Your task to perform on an android device: What's on my calendar today? Image 0: 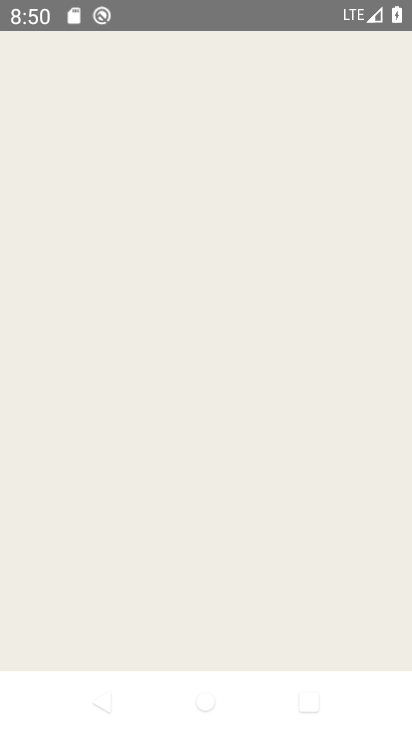
Step 0: drag from (330, 529) to (317, 156)
Your task to perform on an android device: What's on my calendar today? Image 1: 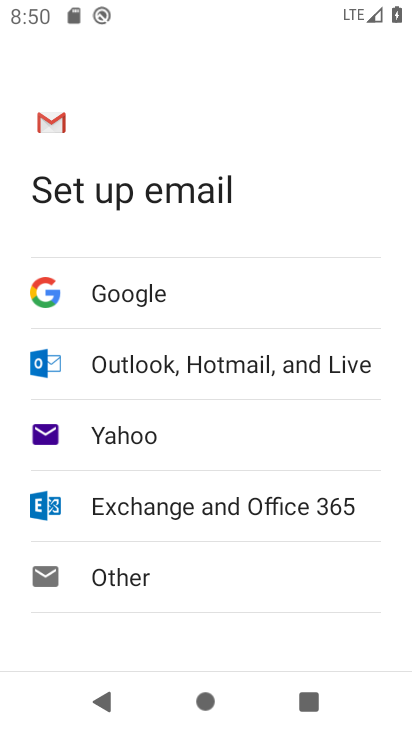
Step 1: press home button
Your task to perform on an android device: What's on my calendar today? Image 2: 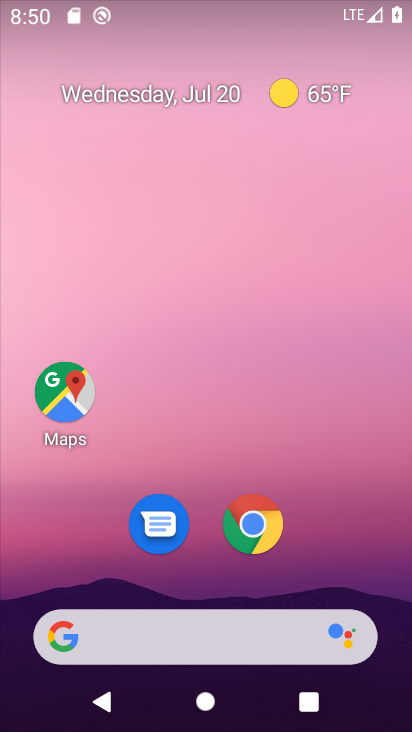
Step 2: drag from (325, 539) to (309, 62)
Your task to perform on an android device: What's on my calendar today? Image 3: 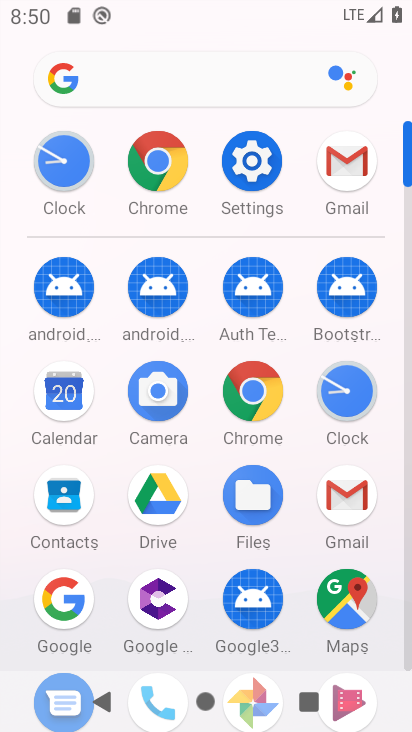
Step 3: click (77, 395)
Your task to perform on an android device: What's on my calendar today? Image 4: 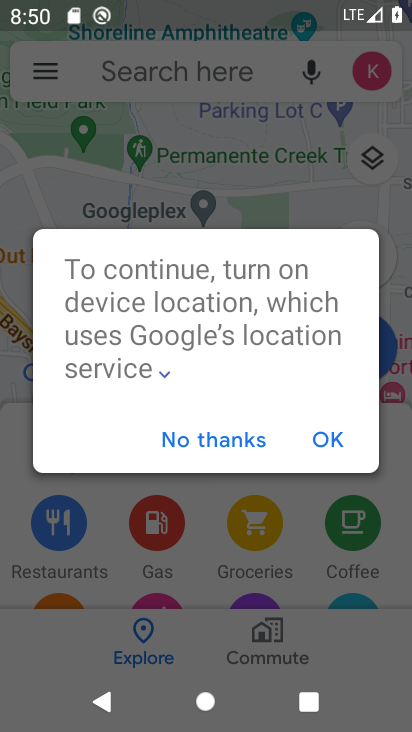
Step 4: click (201, 433)
Your task to perform on an android device: What's on my calendar today? Image 5: 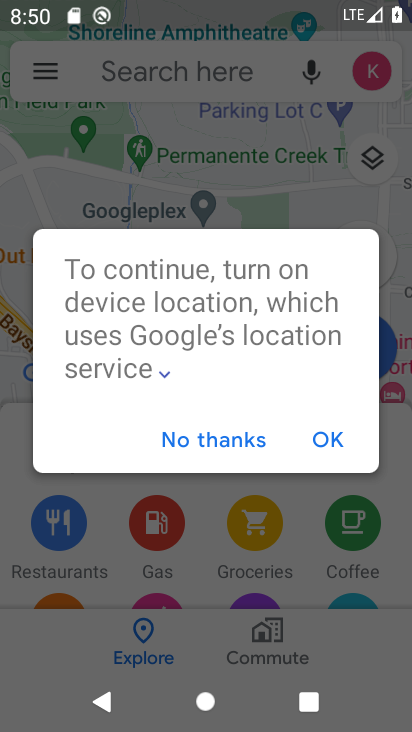
Step 5: click (331, 434)
Your task to perform on an android device: What's on my calendar today? Image 6: 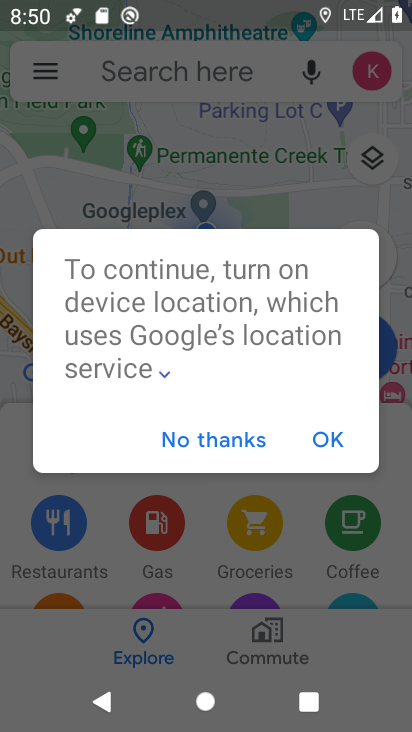
Step 6: click (339, 437)
Your task to perform on an android device: What's on my calendar today? Image 7: 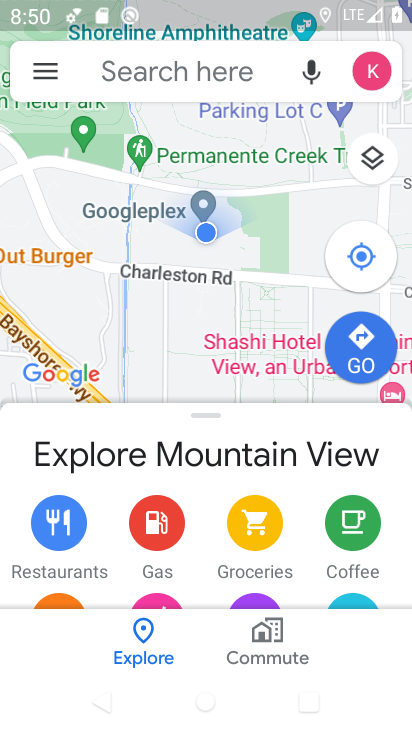
Step 7: press home button
Your task to perform on an android device: What's on my calendar today? Image 8: 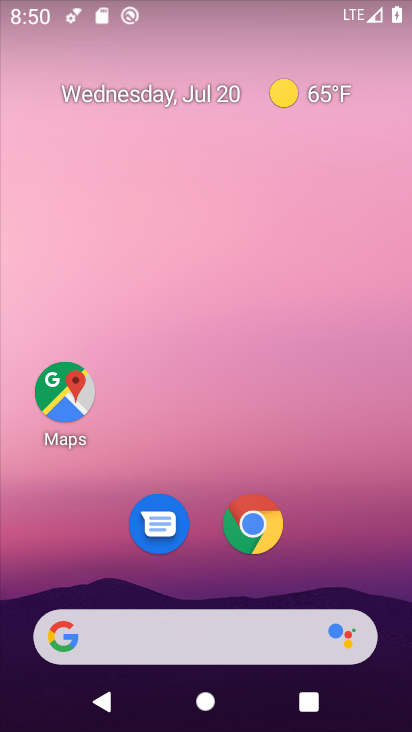
Step 8: drag from (329, 525) to (338, 81)
Your task to perform on an android device: What's on my calendar today? Image 9: 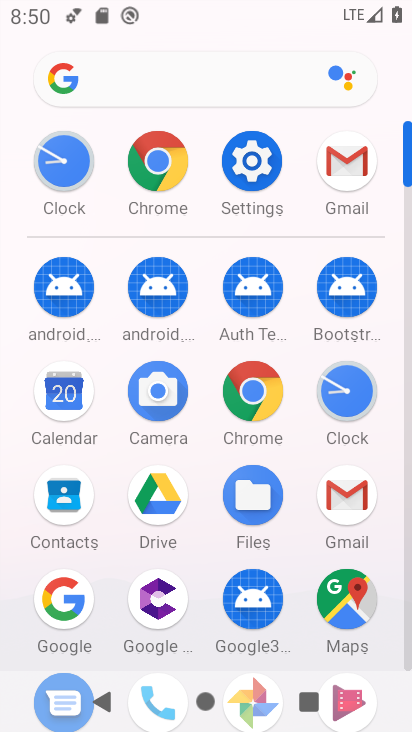
Step 9: click (66, 399)
Your task to perform on an android device: What's on my calendar today? Image 10: 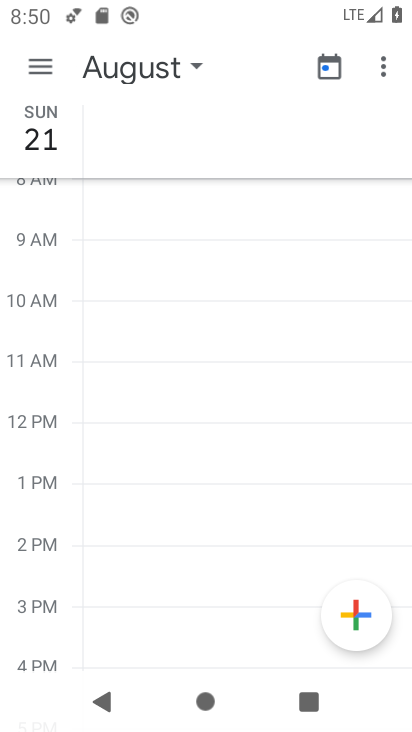
Step 10: click (49, 66)
Your task to perform on an android device: What's on my calendar today? Image 11: 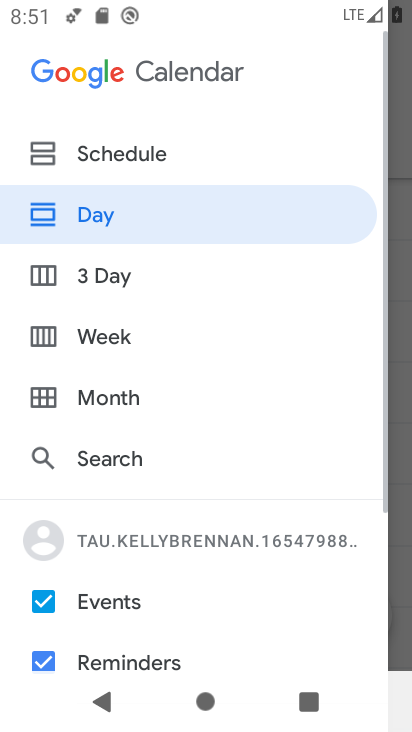
Step 11: click (96, 387)
Your task to perform on an android device: What's on my calendar today? Image 12: 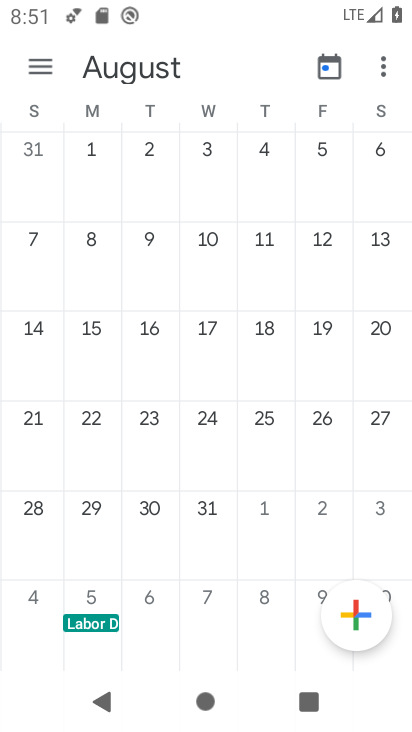
Step 12: drag from (80, 310) to (411, 380)
Your task to perform on an android device: What's on my calendar today? Image 13: 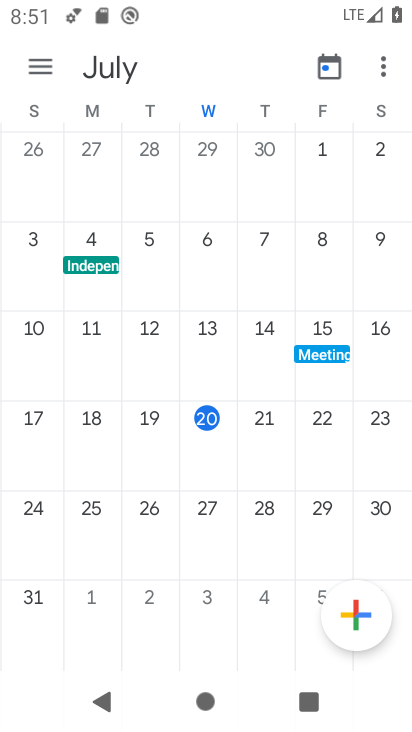
Step 13: click (214, 416)
Your task to perform on an android device: What's on my calendar today? Image 14: 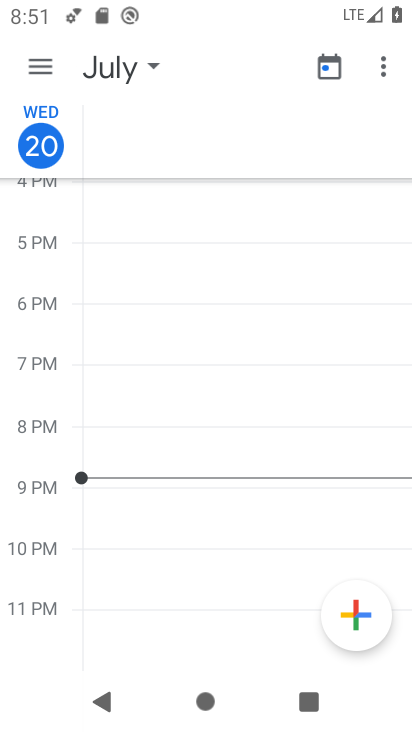
Step 14: task complete